Your task to perform on an android device: search for starred emails in the gmail app Image 0: 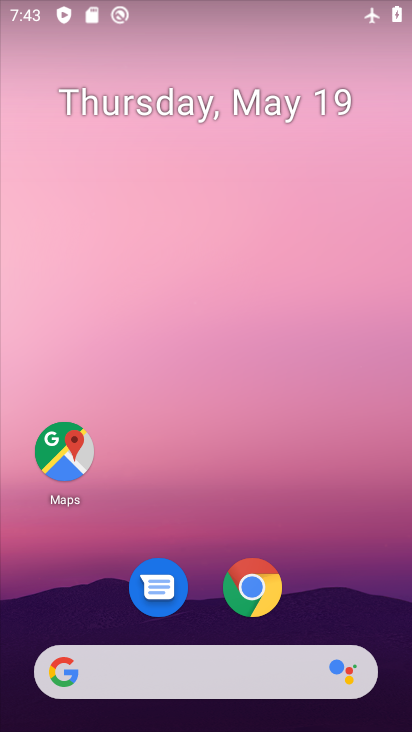
Step 0: drag from (207, 563) to (268, 244)
Your task to perform on an android device: search for starred emails in the gmail app Image 1: 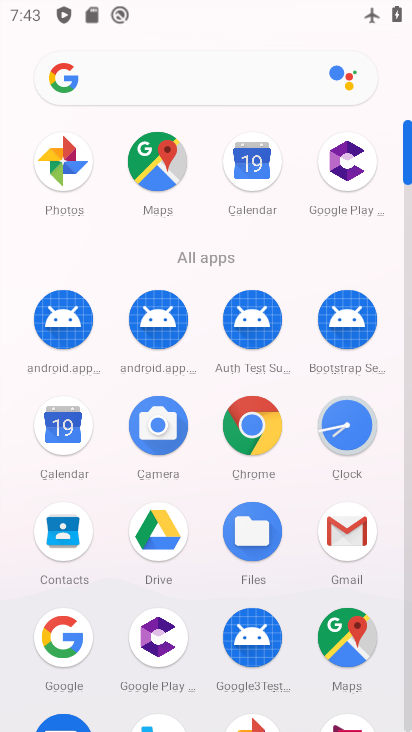
Step 1: click (346, 528)
Your task to perform on an android device: search for starred emails in the gmail app Image 2: 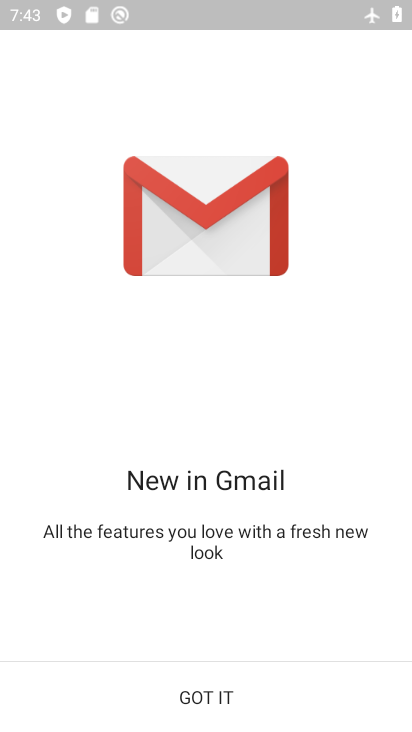
Step 2: click (214, 707)
Your task to perform on an android device: search for starred emails in the gmail app Image 3: 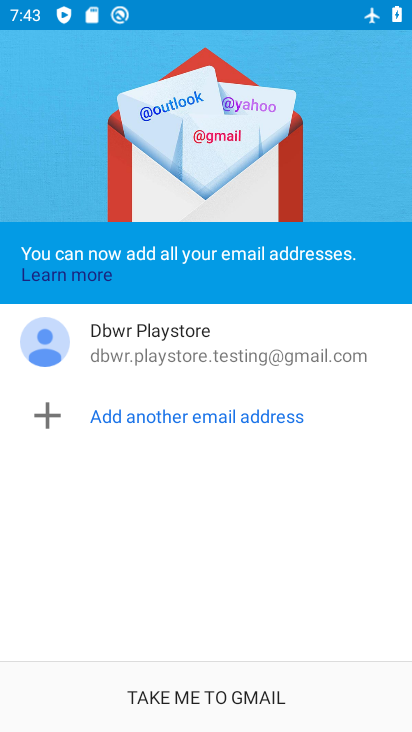
Step 3: click (214, 706)
Your task to perform on an android device: search for starred emails in the gmail app Image 4: 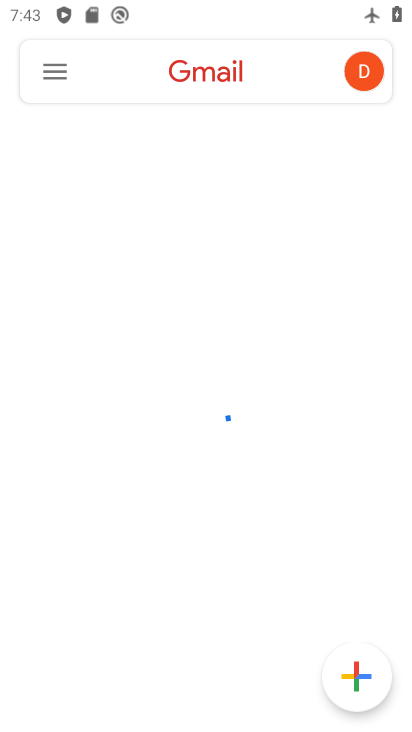
Step 4: click (54, 75)
Your task to perform on an android device: search for starred emails in the gmail app Image 5: 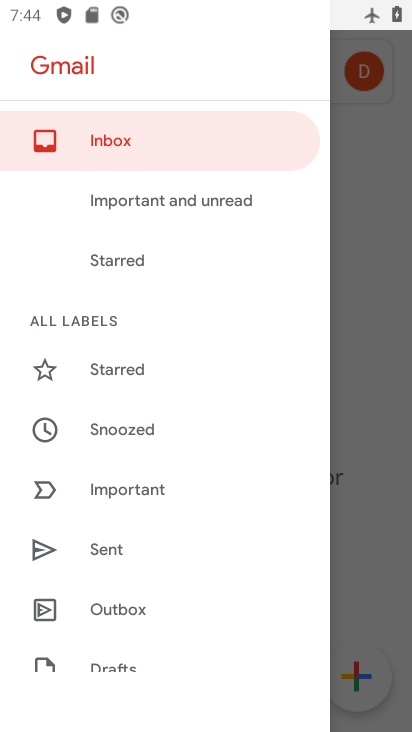
Step 5: click (139, 374)
Your task to perform on an android device: search for starred emails in the gmail app Image 6: 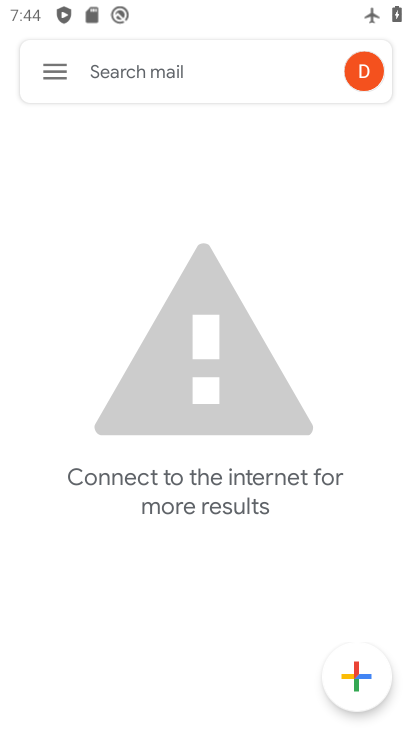
Step 6: task complete